Your task to perform on an android device: Go to eBay Image 0: 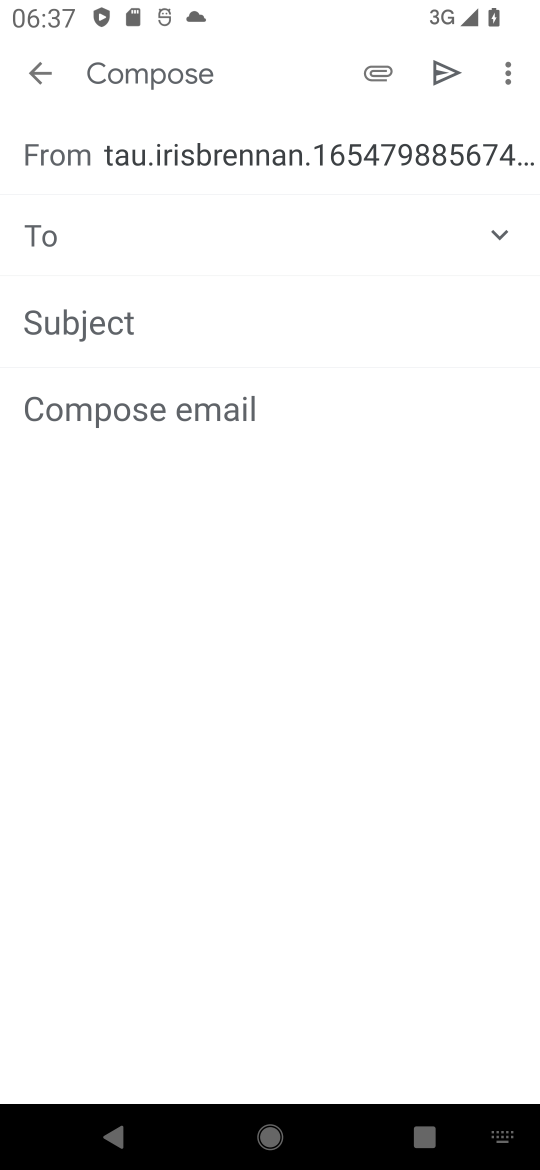
Step 0: press home button
Your task to perform on an android device: Go to eBay Image 1: 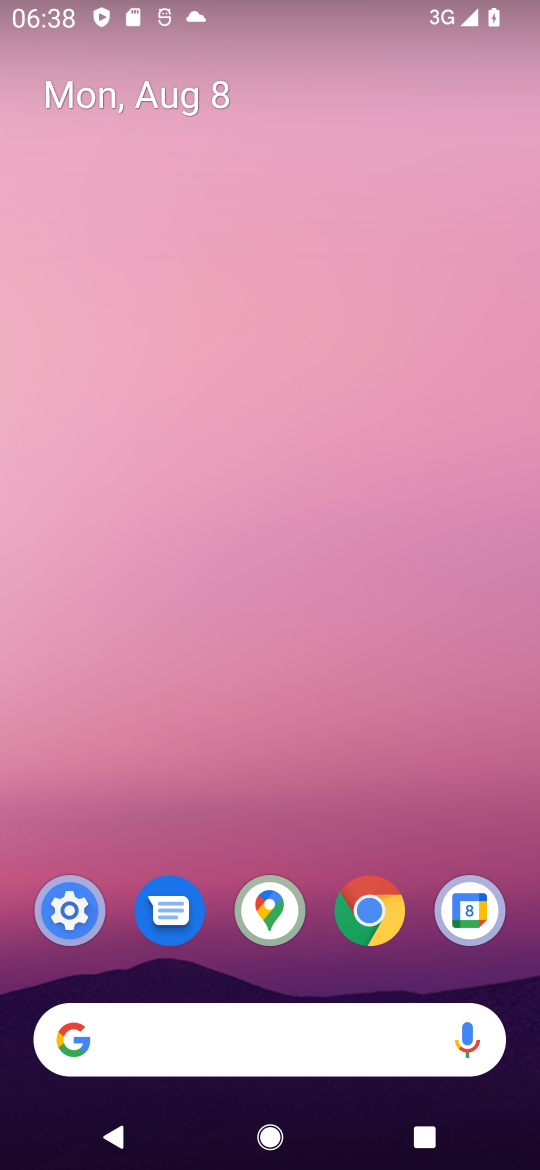
Step 1: click (373, 911)
Your task to perform on an android device: Go to eBay Image 2: 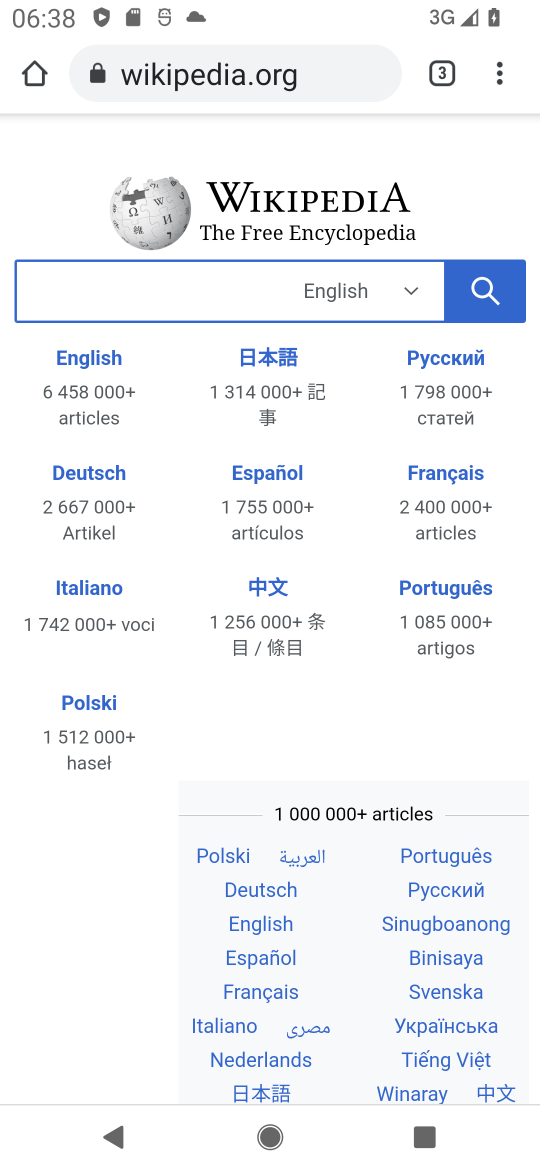
Step 2: click (270, 99)
Your task to perform on an android device: Go to eBay Image 3: 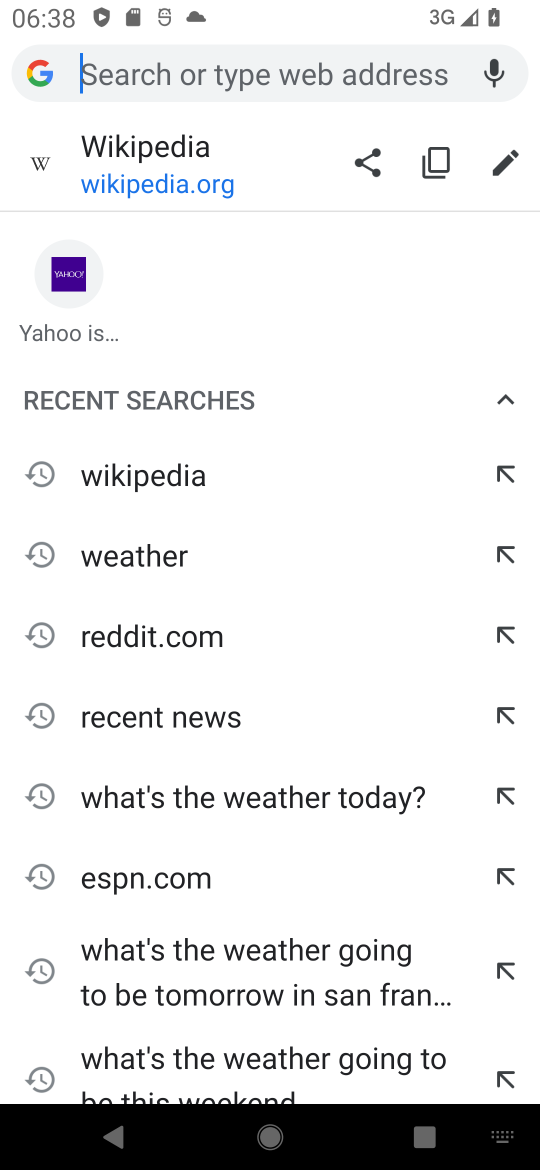
Step 3: type "eBay"
Your task to perform on an android device: Go to eBay Image 4: 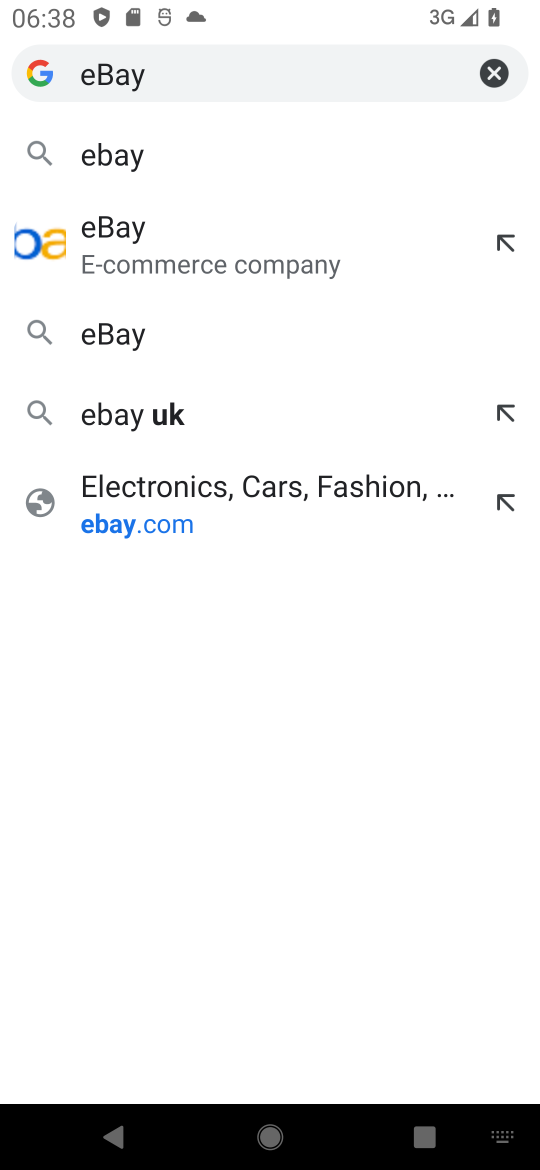
Step 4: click (111, 240)
Your task to perform on an android device: Go to eBay Image 5: 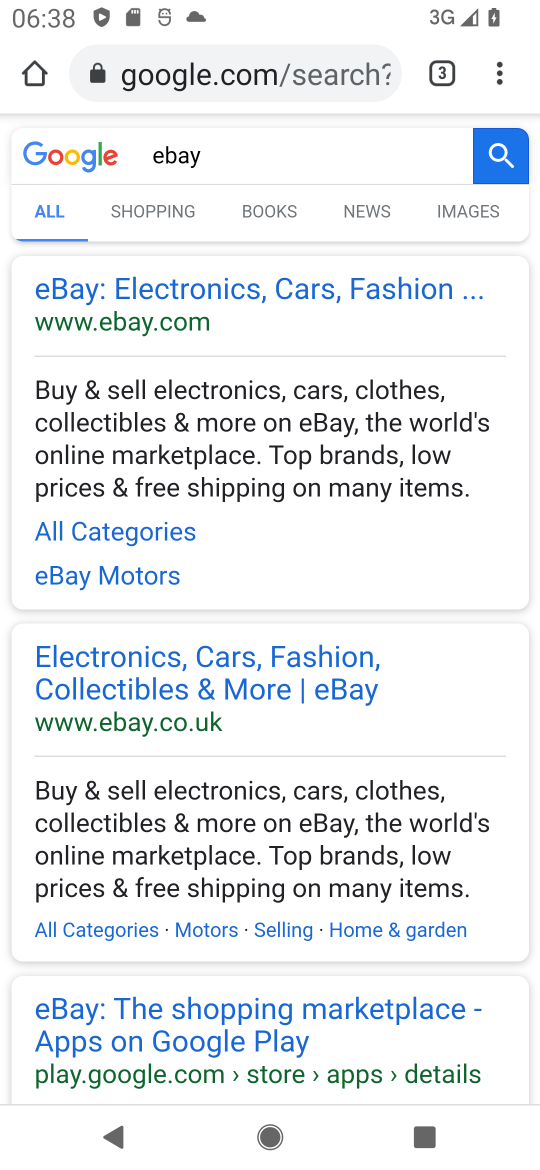
Step 5: click (110, 284)
Your task to perform on an android device: Go to eBay Image 6: 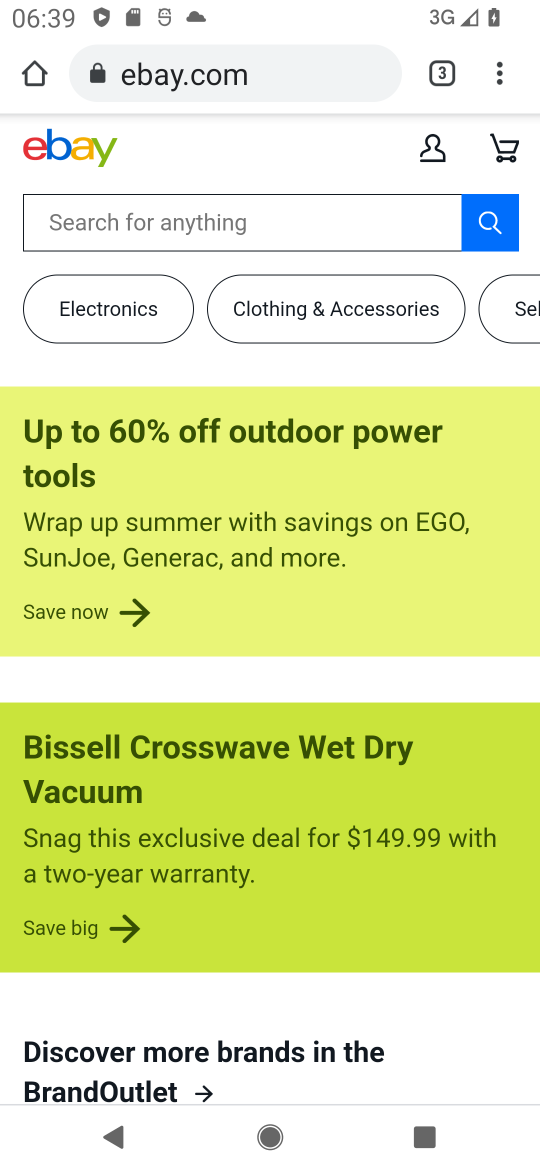
Step 6: task complete